Your task to perform on an android device: turn off location Image 0: 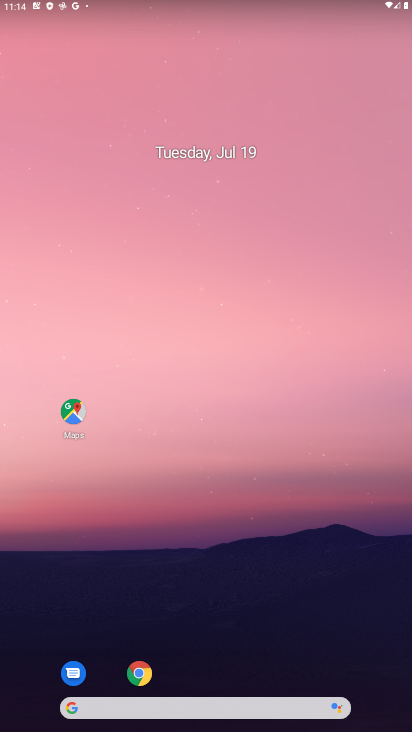
Step 0: drag from (287, 671) to (267, 494)
Your task to perform on an android device: turn off location Image 1: 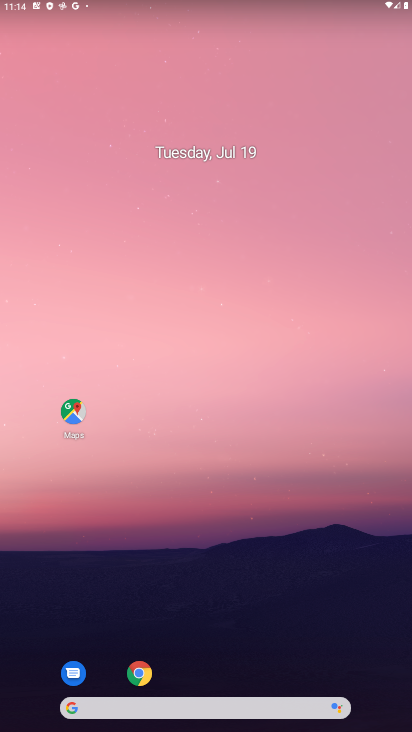
Step 1: drag from (250, 672) to (249, 610)
Your task to perform on an android device: turn off location Image 2: 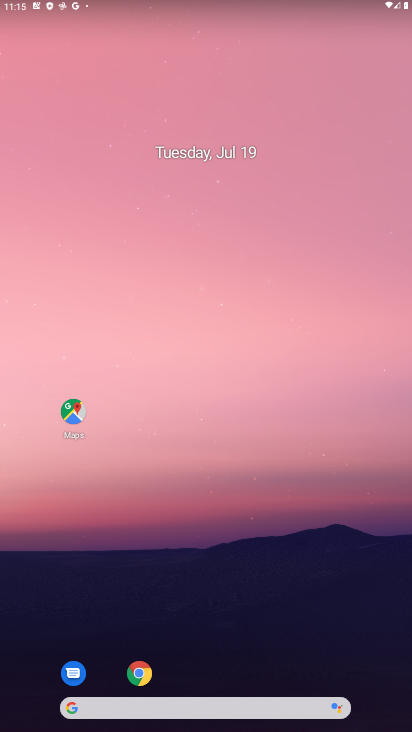
Step 2: drag from (249, 610) to (96, 26)
Your task to perform on an android device: turn off location Image 3: 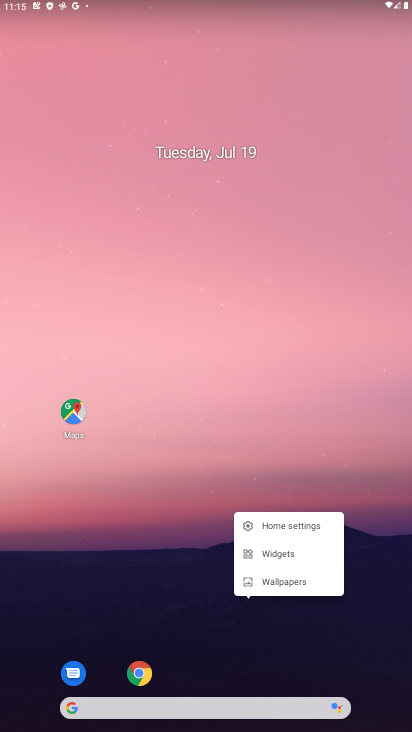
Step 3: click (119, 434)
Your task to perform on an android device: turn off location Image 4: 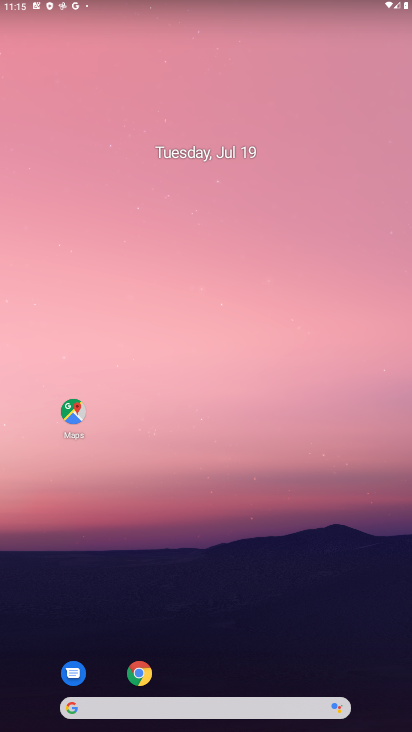
Step 4: task complete